Your task to perform on an android device: toggle show notifications on the lock screen Image 0: 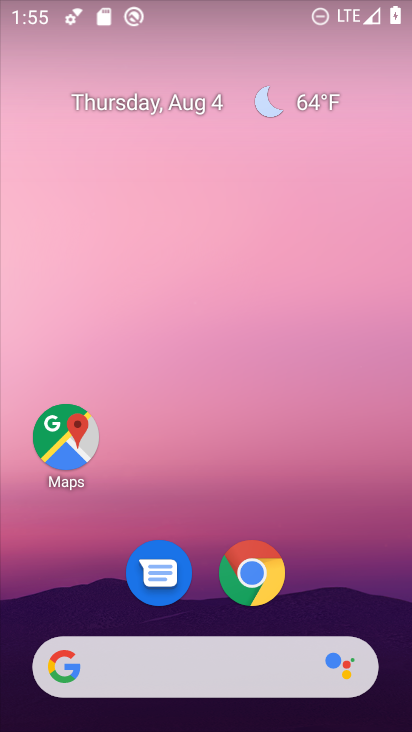
Step 0: drag from (357, 551) to (238, 32)
Your task to perform on an android device: toggle show notifications on the lock screen Image 1: 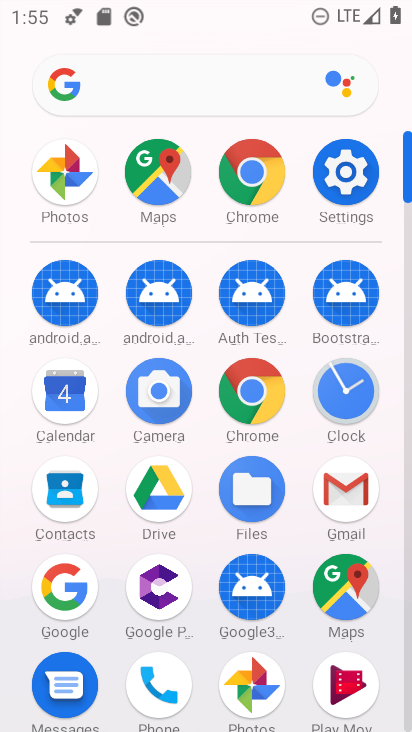
Step 1: click (356, 181)
Your task to perform on an android device: toggle show notifications on the lock screen Image 2: 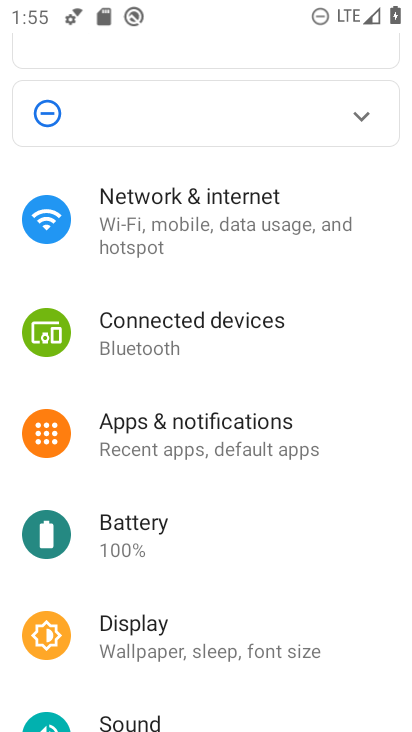
Step 2: drag from (294, 579) to (253, 472)
Your task to perform on an android device: toggle show notifications on the lock screen Image 3: 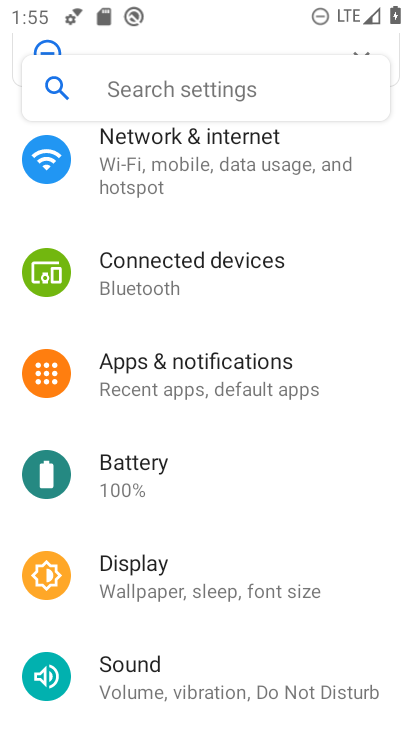
Step 3: click (235, 386)
Your task to perform on an android device: toggle show notifications on the lock screen Image 4: 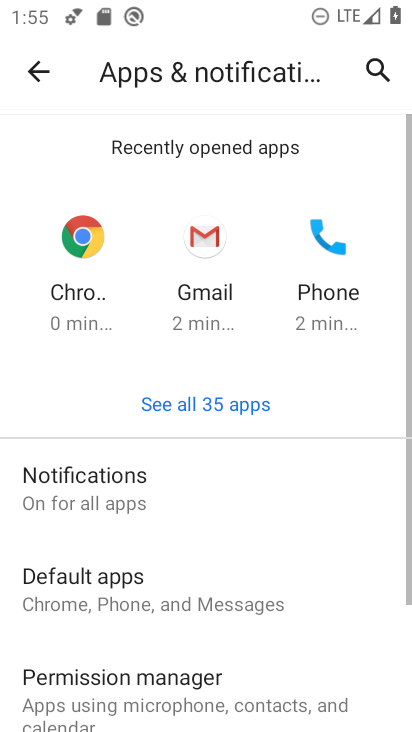
Step 4: click (168, 493)
Your task to perform on an android device: toggle show notifications on the lock screen Image 5: 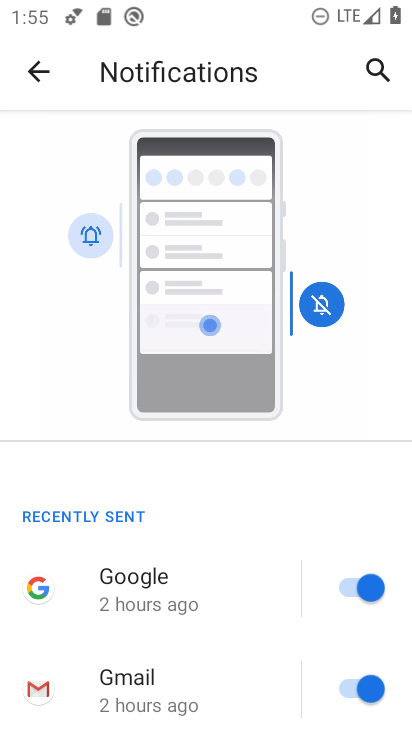
Step 5: drag from (225, 519) to (173, 79)
Your task to perform on an android device: toggle show notifications on the lock screen Image 6: 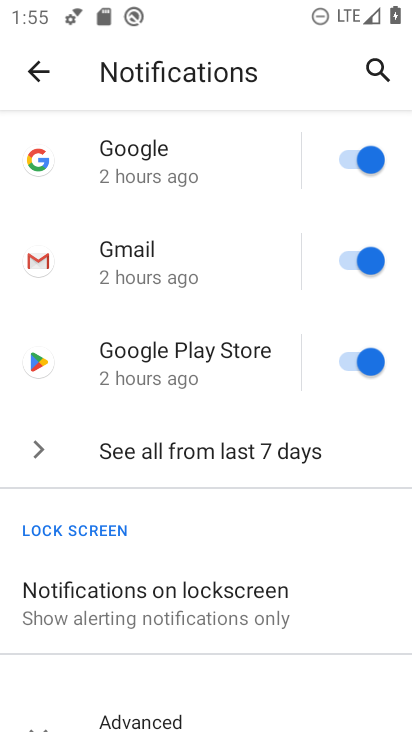
Step 6: click (210, 598)
Your task to perform on an android device: toggle show notifications on the lock screen Image 7: 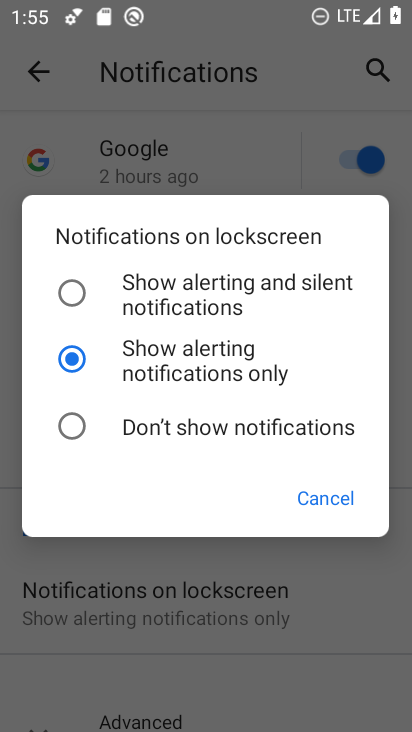
Step 7: click (171, 417)
Your task to perform on an android device: toggle show notifications on the lock screen Image 8: 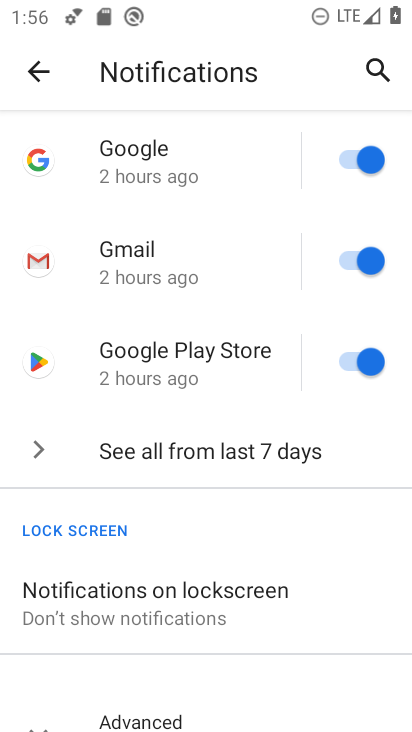
Step 8: task complete